Your task to perform on an android device: Open Chrome and go to the settings page Image 0: 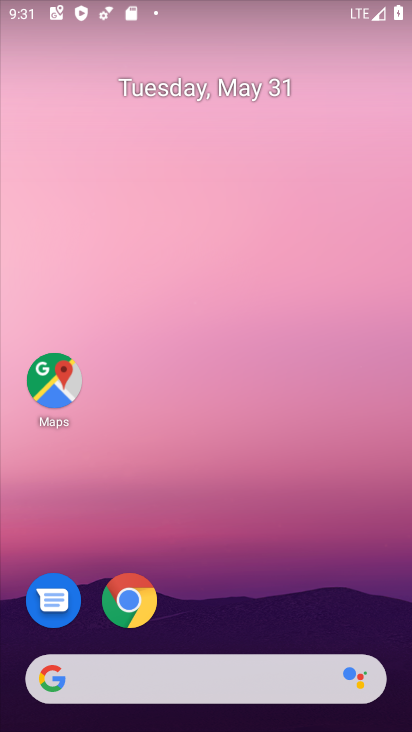
Step 0: click (130, 599)
Your task to perform on an android device: Open Chrome and go to the settings page Image 1: 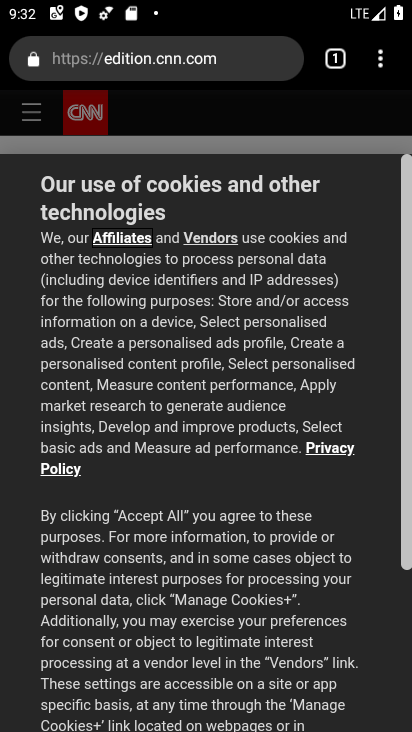
Step 1: task complete